Your task to perform on an android device: Open the stopwatch Image 0: 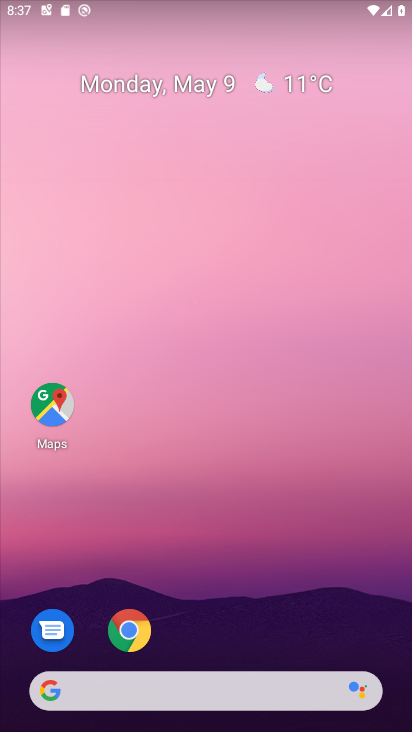
Step 0: drag from (203, 616) to (280, 148)
Your task to perform on an android device: Open the stopwatch Image 1: 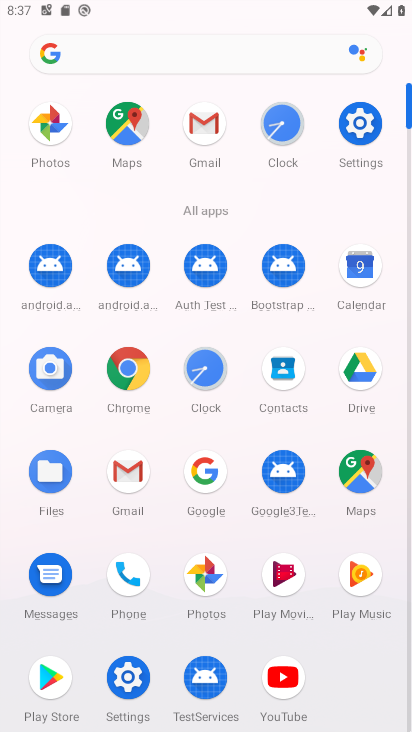
Step 1: click (213, 369)
Your task to perform on an android device: Open the stopwatch Image 2: 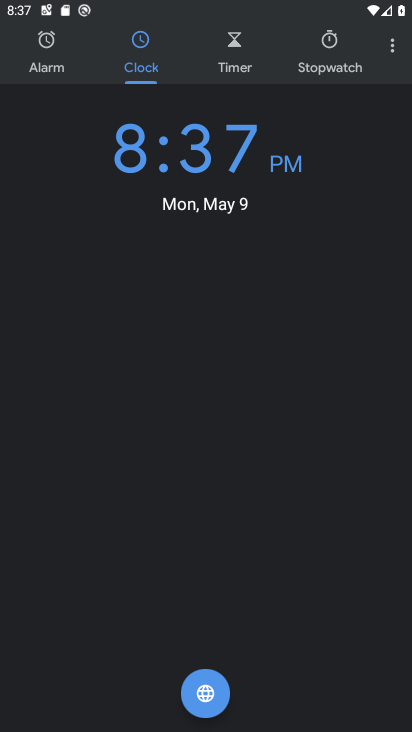
Step 2: click (329, 58)
Your task to perform on an android device: Open the stopwatch Image 3: 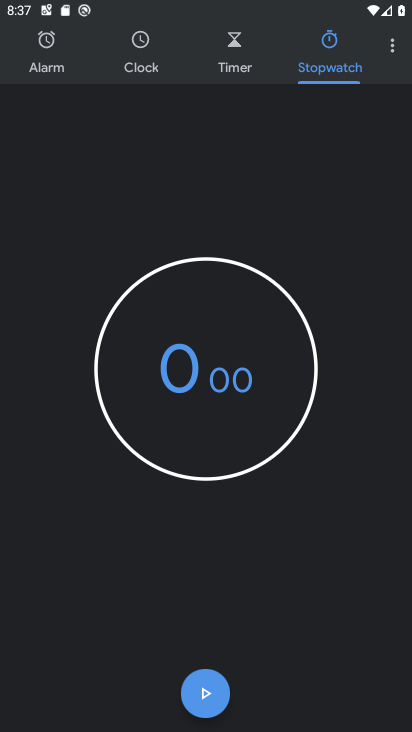
Step 3: task complete